Your task to perform on an android device: Add "amazon basics triple a" to the cart on ebay.com Image 0: 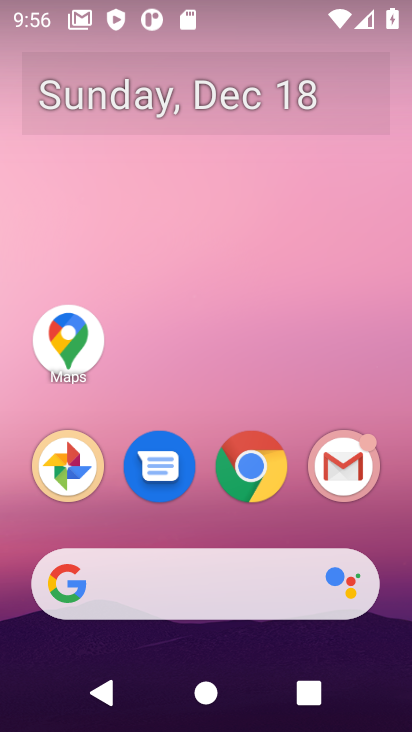
Step 0: task complete